Your task to perform on an android device: turn smart compose on in the gmail app Image 0: 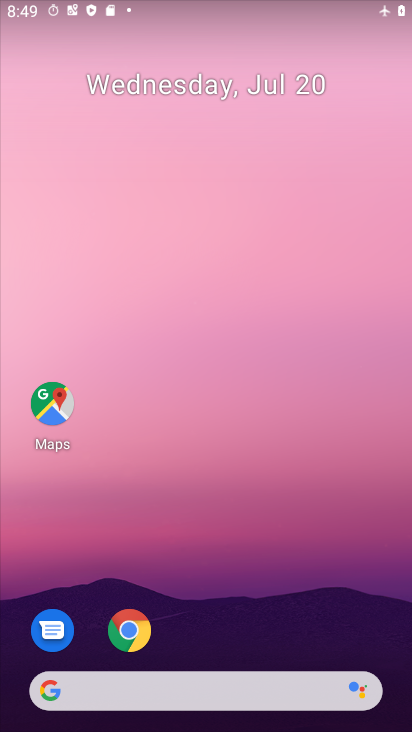
Step 0: press home button
Your task to perform on an android device: turn smart compose on in the gmail app Image 1: 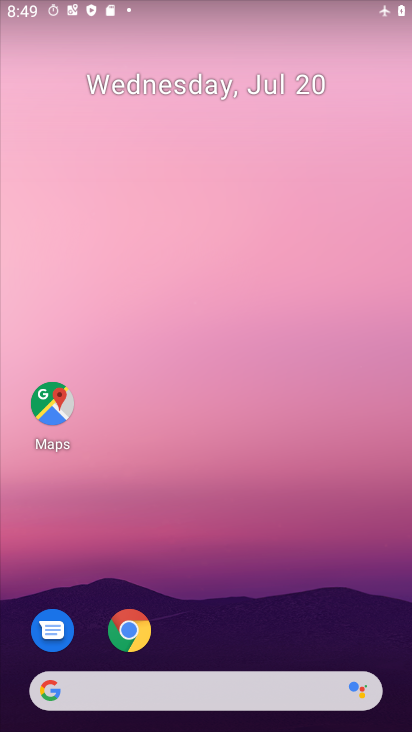
Step 1: drag from (281, 262) to (289, 5)
Your task to perform on an android device: turn smart compose on in the gmail app Image 2: 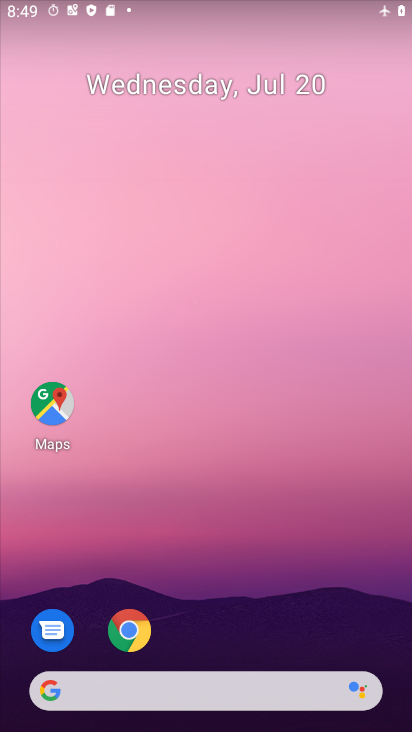
Step 2: drag from (274, 708) to (299, 3)
Your task to perform on an android device: turn smart compose on in the gmail app Image 3: 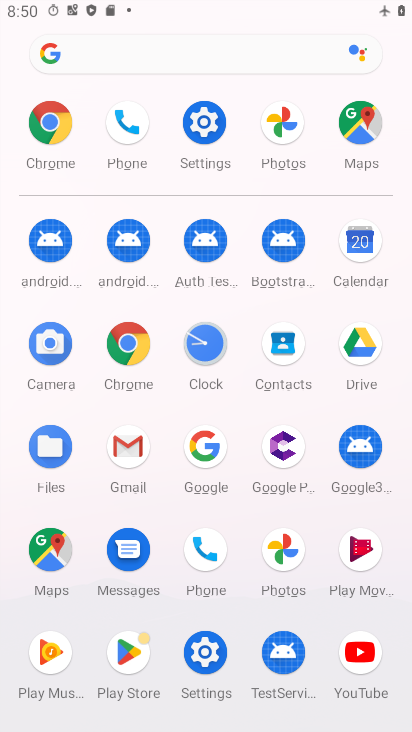
Step 3: click (132, 443)
Your task to perform on an android device: turn smart compose on in the gmail app Image 4: 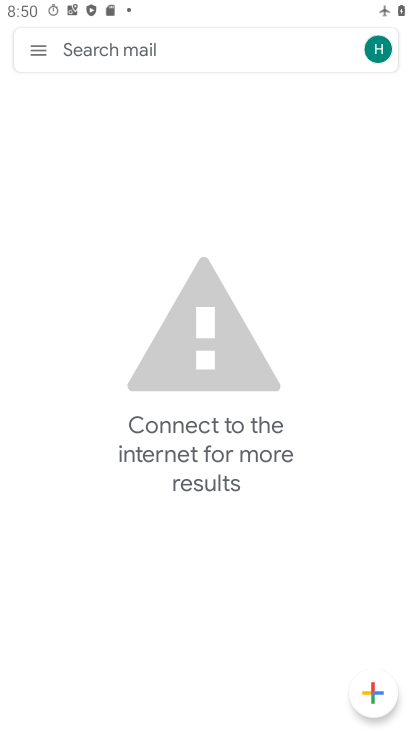
Step 4: click (27, 46)
Your task to perform on an android device: turn smart compose on in the gmail app Image 5: 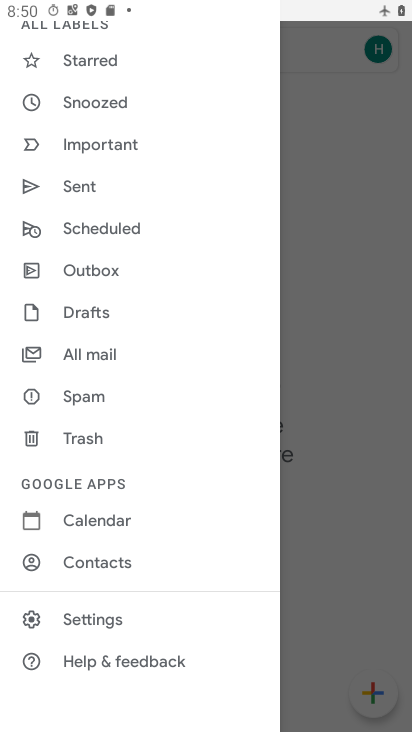
Step 5: click (97, 619)
Your task to perform on an android device: turn smart compose on in the gmail app Image 6: 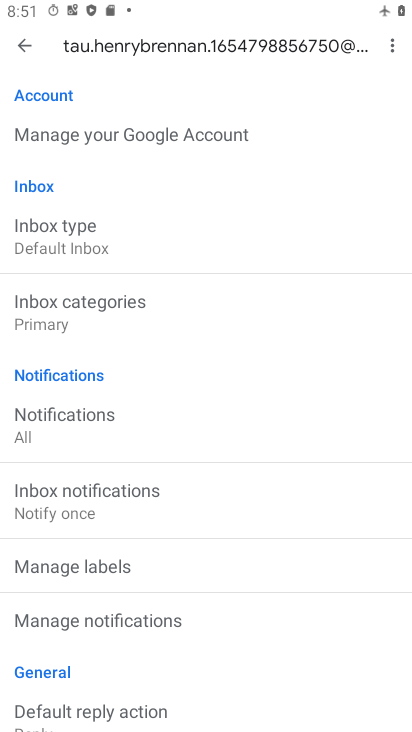
Step 6: task complete